Your task to perform on an android device: turn vacation reply on in the gmail app Image 0: 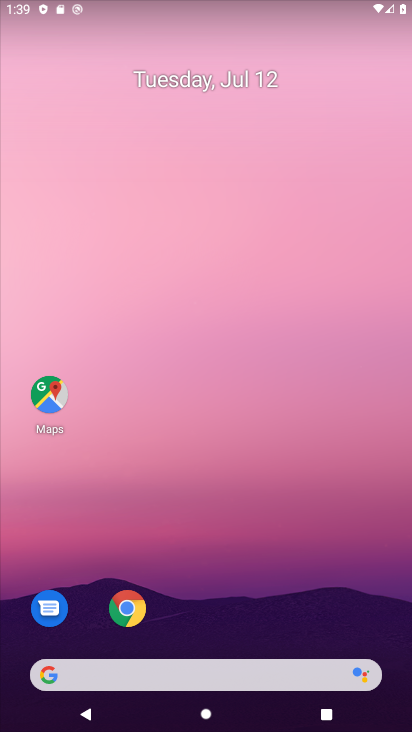
Step 0: drag from (193, 474) to (176, 3)
Your task to perform on an android device: turn vacation reply on in the gmail app Image 1: 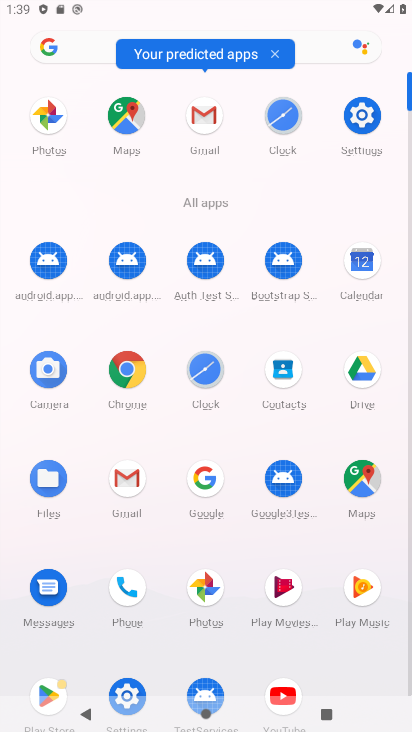
Step 1: click (196, 139)
Your task to perform on an android device: turn vacation reply on in the gmail app Image 2: 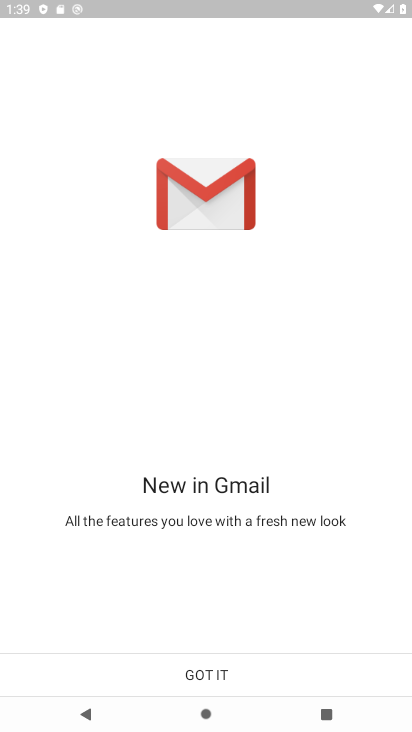
Step 2: click (204, 674)
Your task to perform on an android device: turn vacation reply on in the gmail app Image 3: 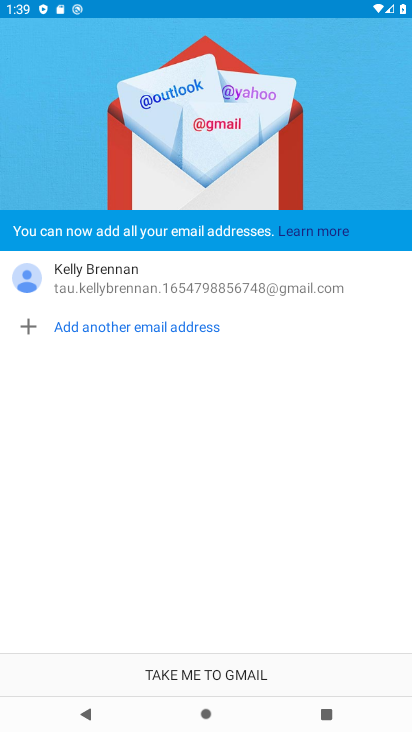
Step 3: click (204, 674)
Your task to perform on an android device: turn vacation reply on in the gmail app Image 4: 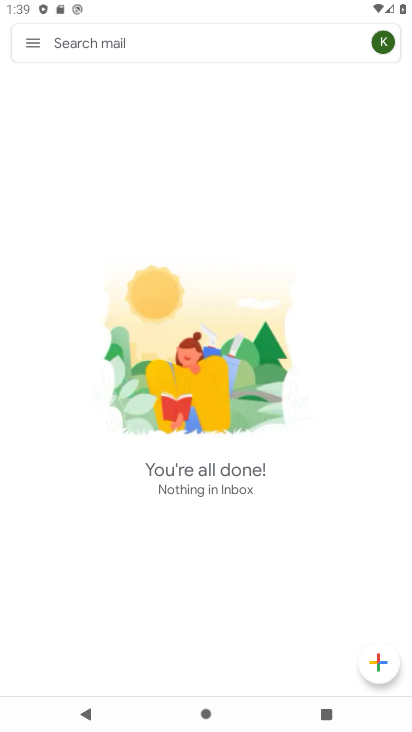
Step 4: click (28, 46)
Your task to perform on an android device: turn vacation reply on in the gmail app Image 5: 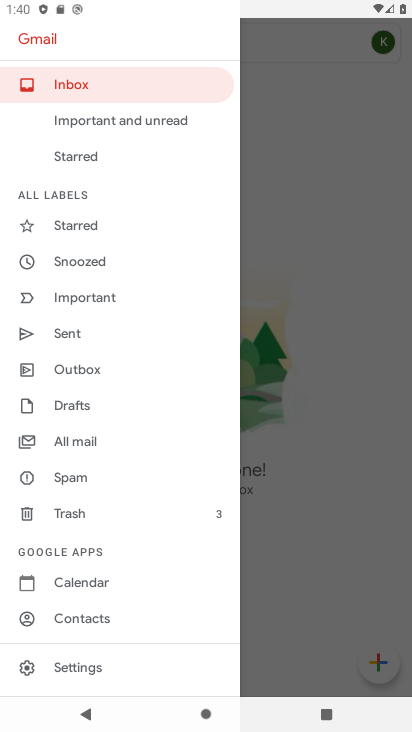
Step 5: click (76, 668)
Your task to perform on an android device: turn vacation reply on in the gmail app Image 6: 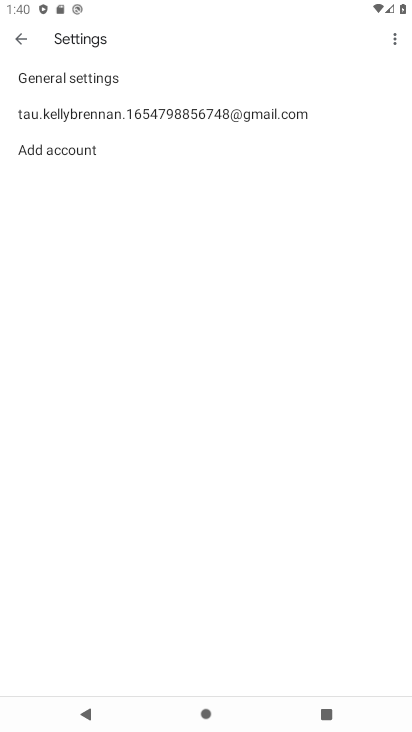
Step 6: click (264, 117)
Your task to perform on an android device: turn vacation reply on in the gmail app Image 7: 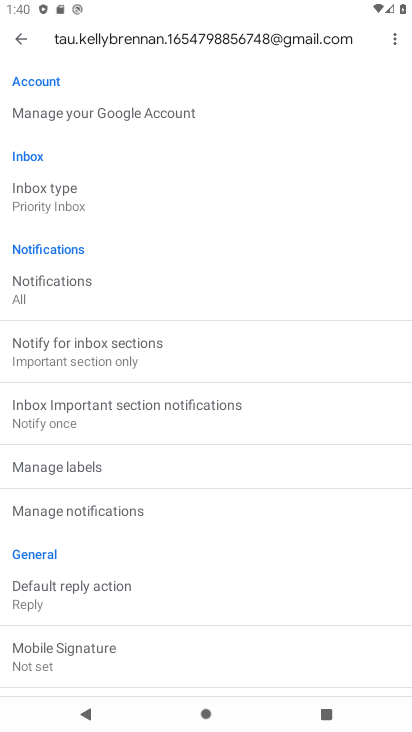
Step 7: drag from (125, 476) to (196, 194)
Your task to perform on an android device: turn vacation reply on in the gmail app Image 8: 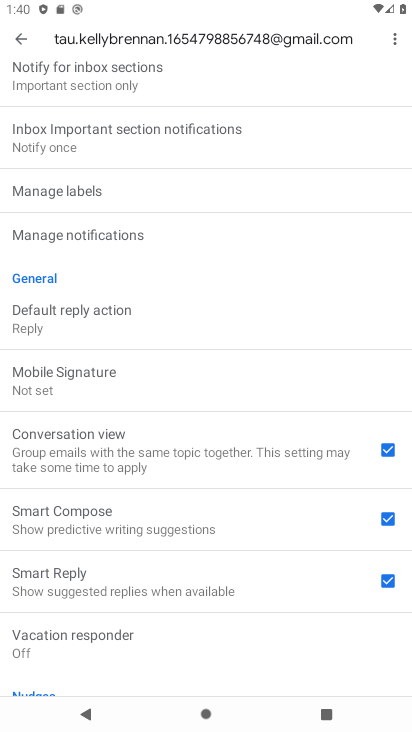
Step 8: click (104, 644)
Your task to perform on an android device: turn vacation reply on in the gmail app Image 9: 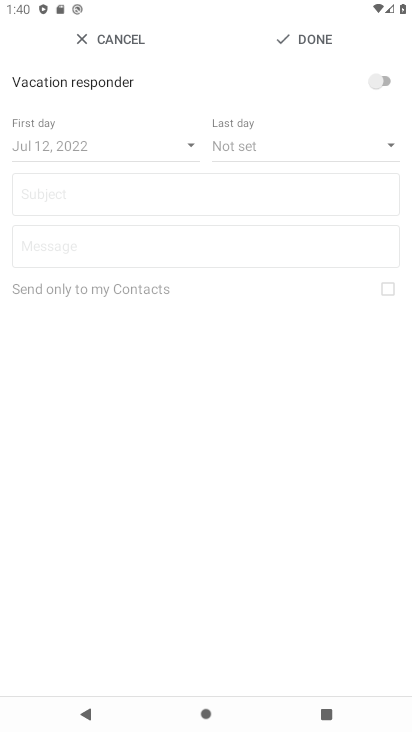
Step 9: click (386, 81)
Your task to perform on an android device: turn vacation reply on in the gmail app Image 10: 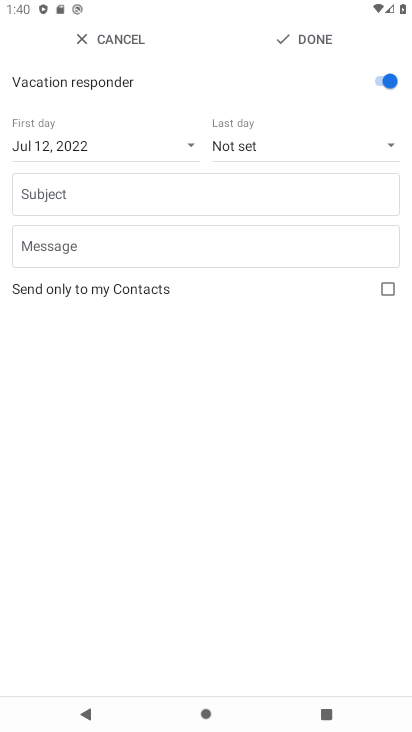
Step 10: task complete